Your task to perform on an android device: allow notifications from all sites in the chrome app Image 0: 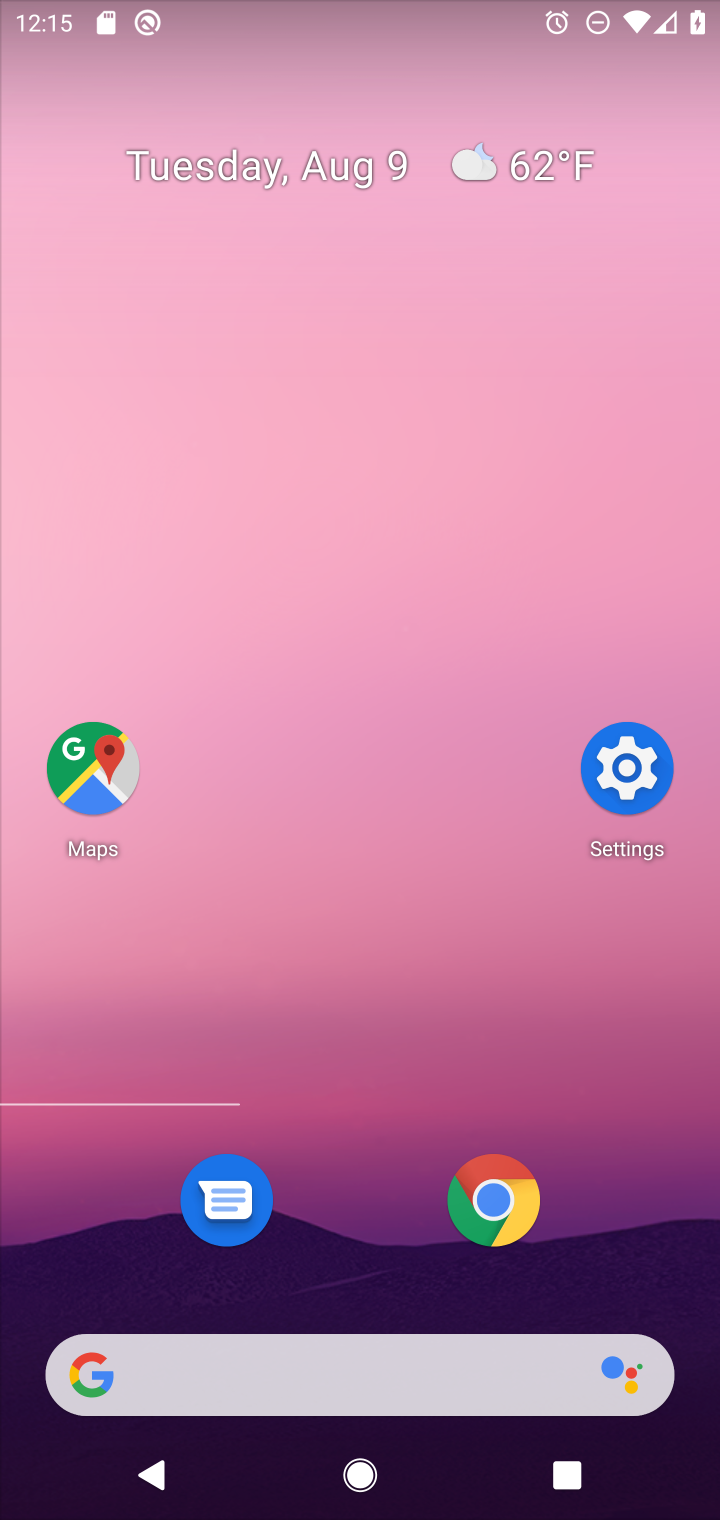
Step 0: click (478, 1204)
Your task to perform on an android device: allow notifications from all sites in the chrome app Image 1: 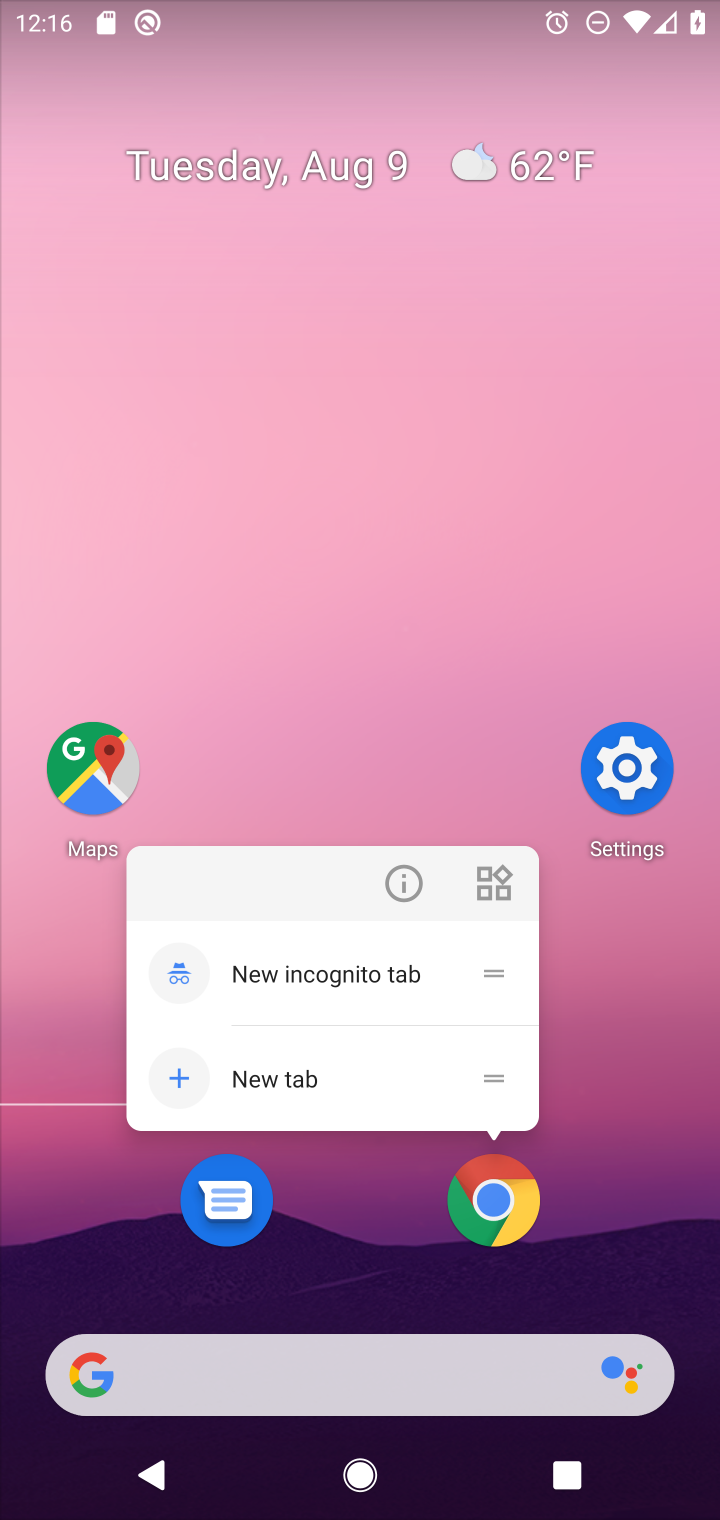
Step 1: click (485, 1202)
Your task to perform on an android device: allow notifications from all sites in the chrome app Image 2: 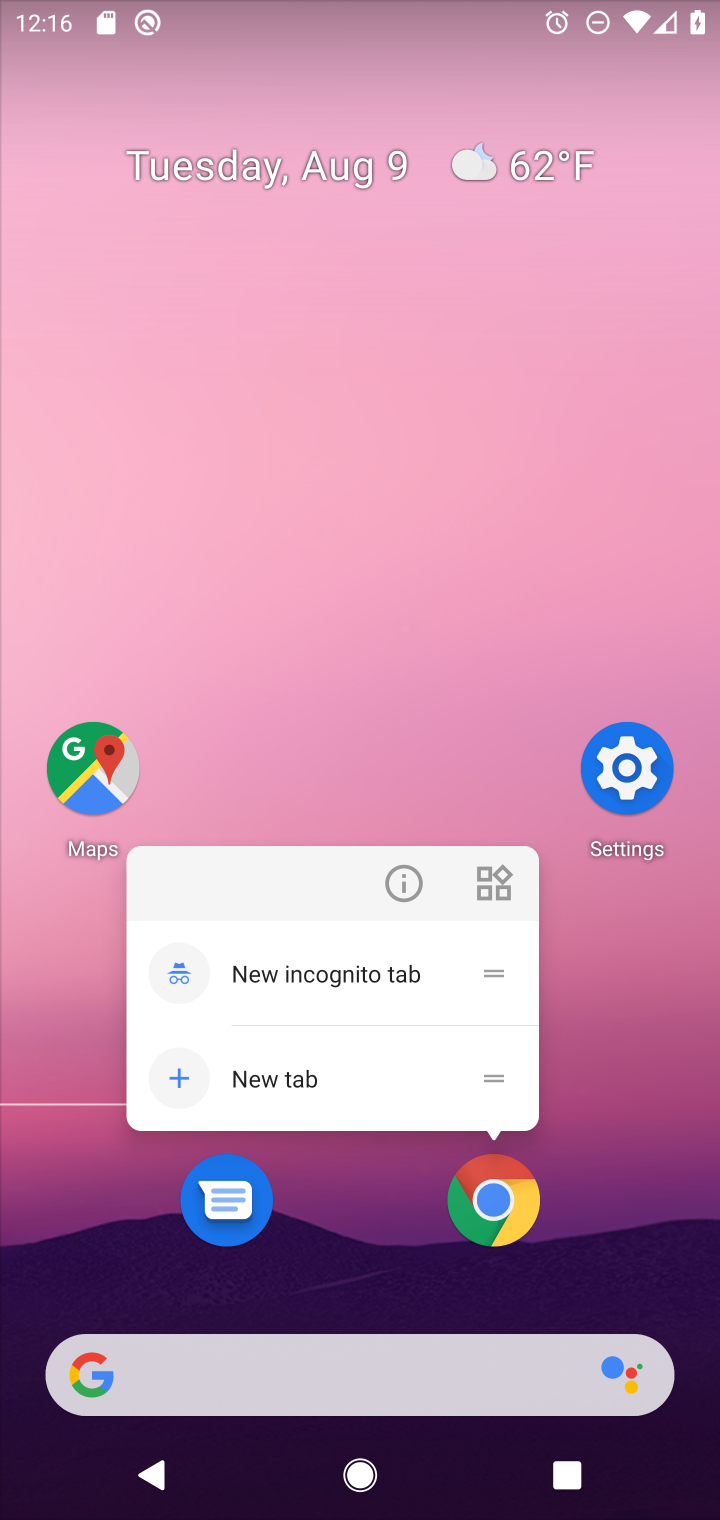
Step 2: click (501, 1195)
Your task to perform on an android device: allow notifications from all sites in the chrome app Image 3: 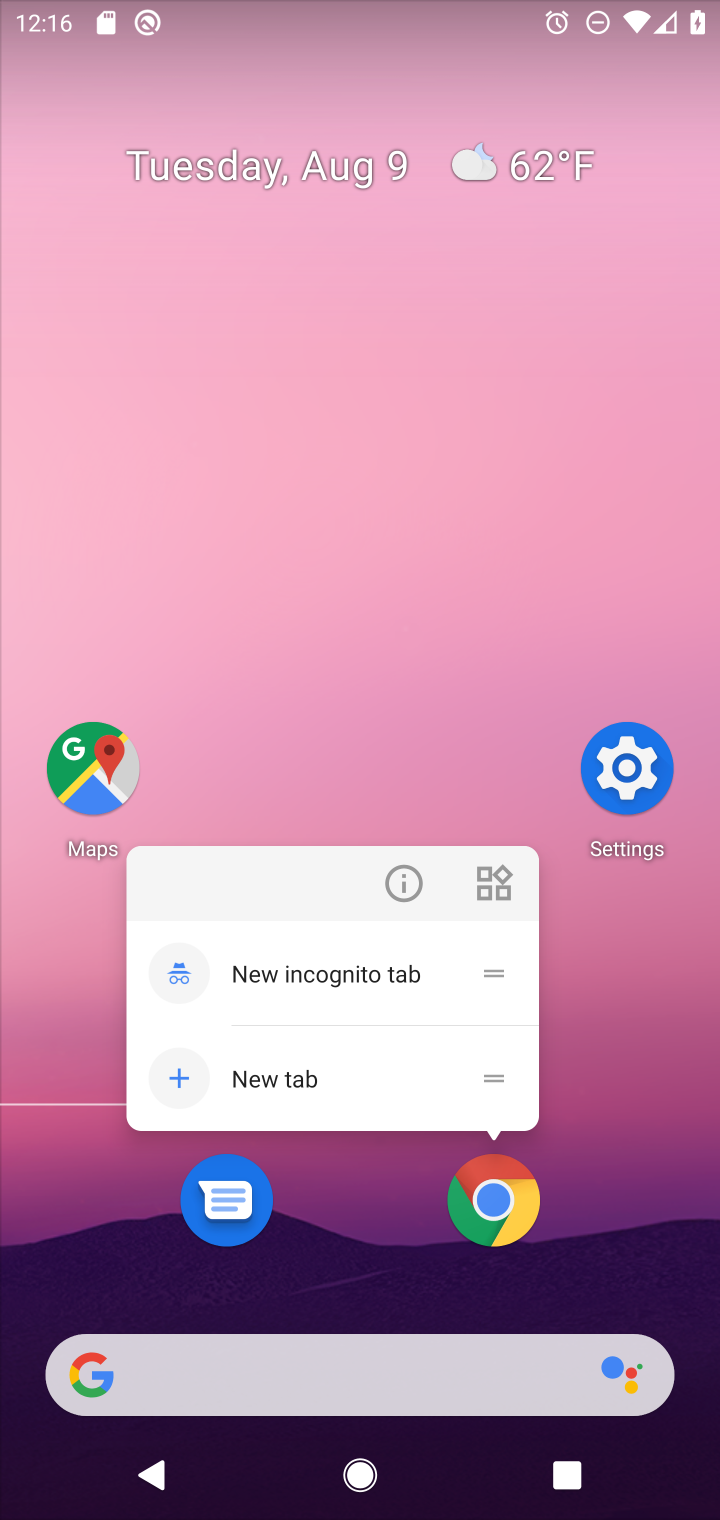
Step 3: click (501, 1205)
Your task to perform on an android device: allow notifications from all sites in the chrome app Image 4: 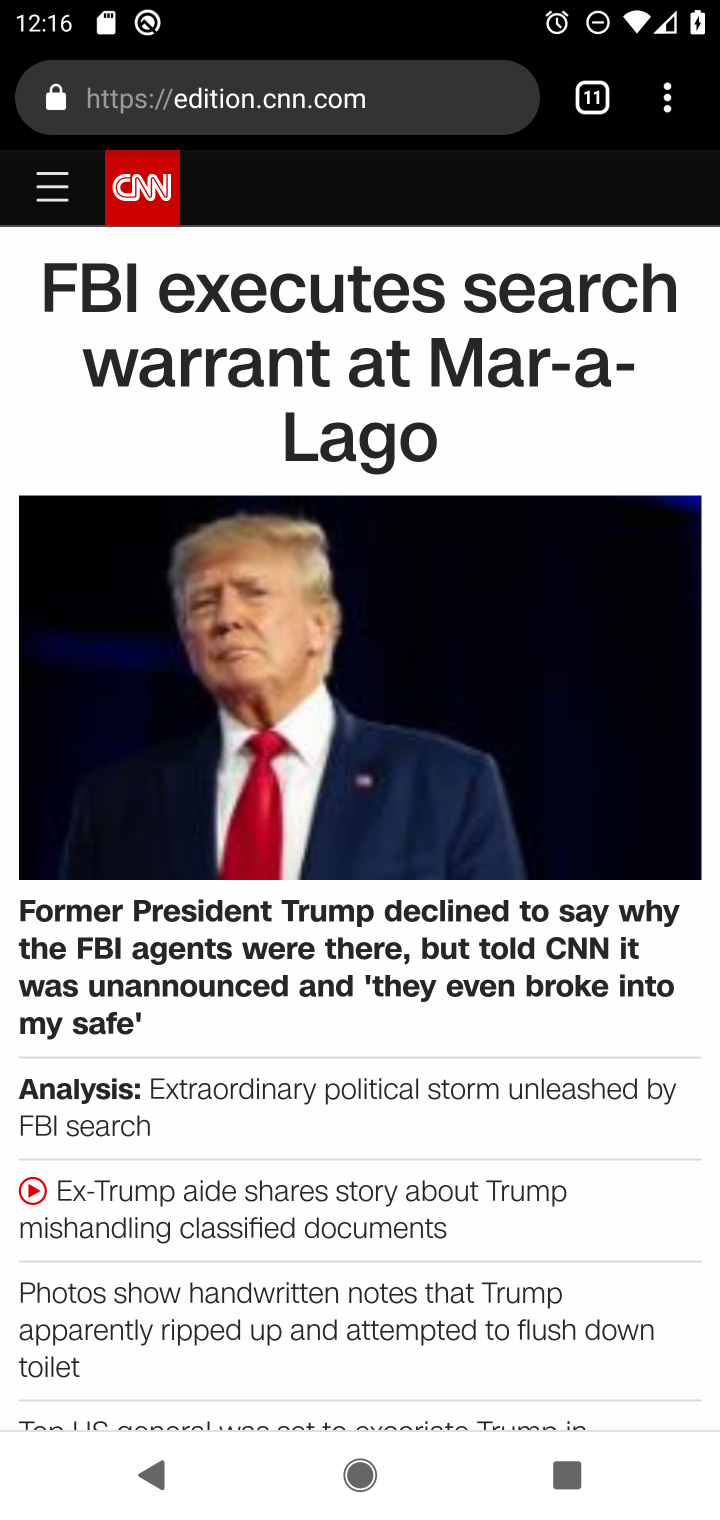
Step 4: drag from (668, 95) to (412, 1276)
Your task to perform on an android device: allow notifications from all sites in the chrome app Image 5: 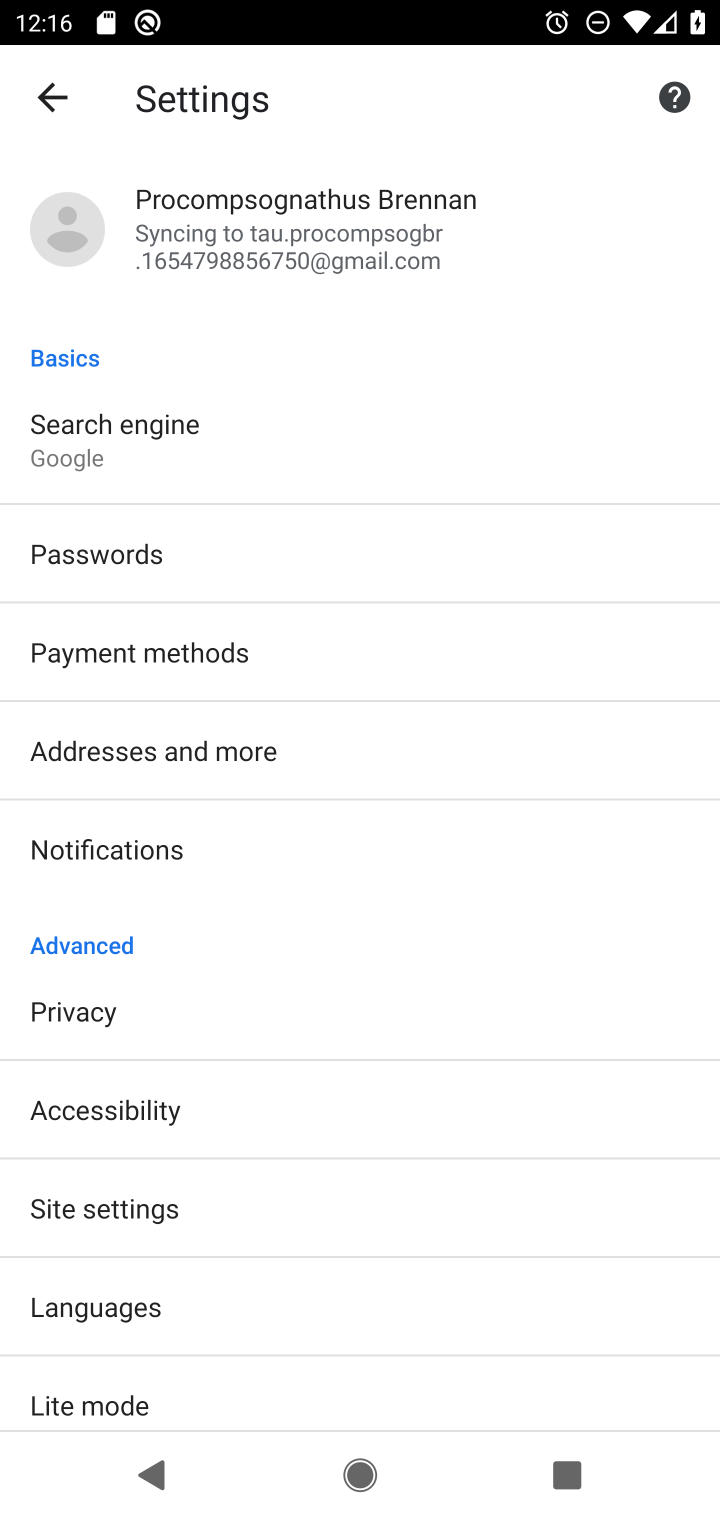
Step 5: drag from (354, 1170) to (508, 747)
Your task to perform on an android device: allow notifications from all sites in the chrome app Image 6: 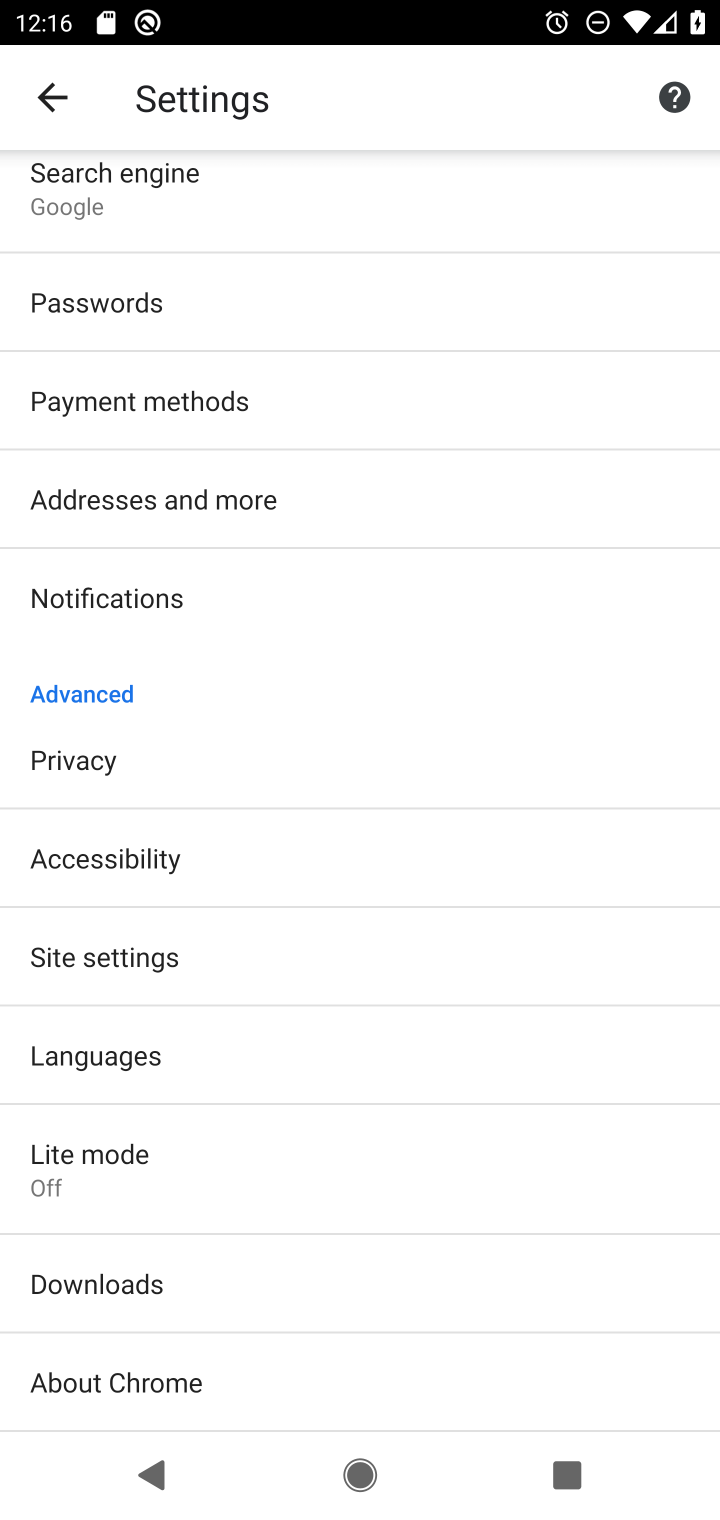
Step 6: click (122, 960)
Your task to perform on an android device: allow notifications from all sites in the chrome app Image 7: 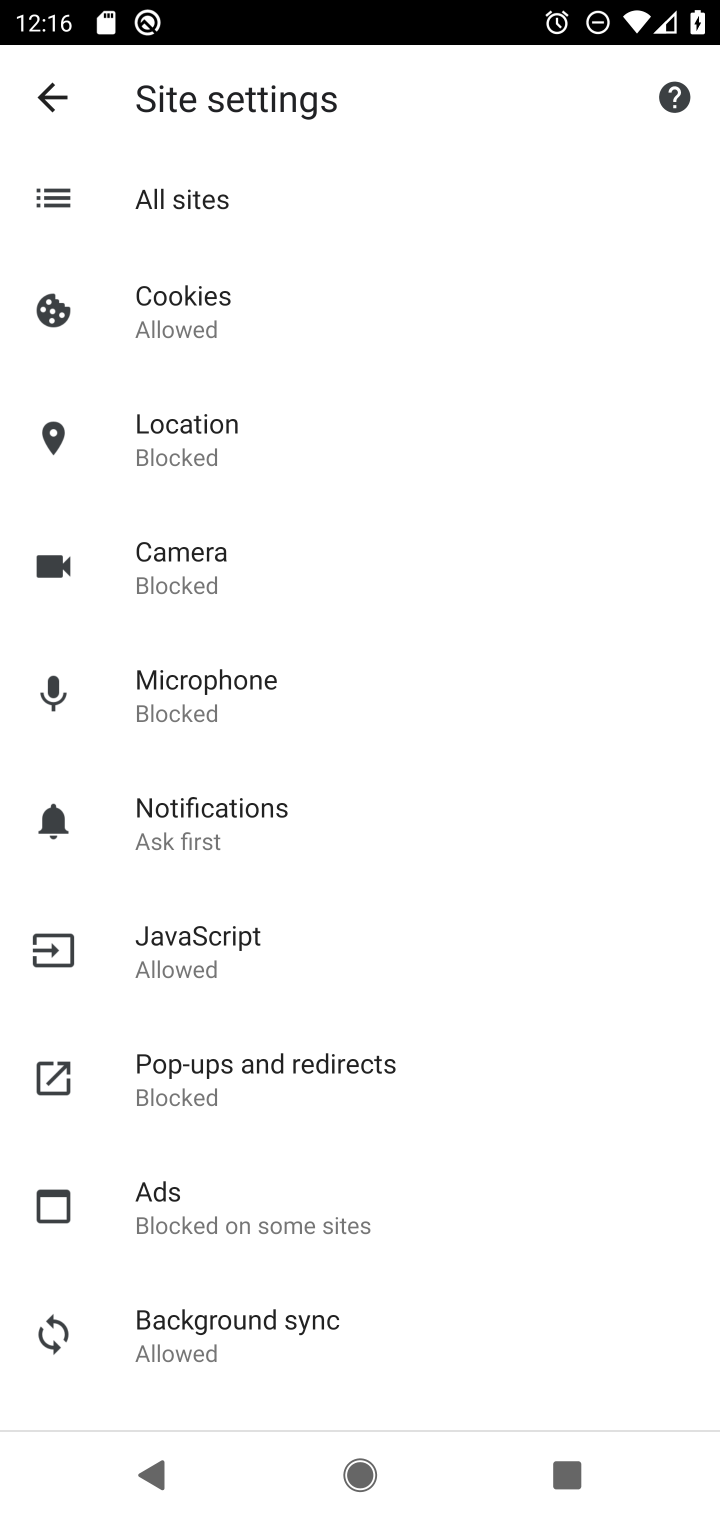
Step 7: click (213, 831)
Your task to perform on an android device: allow notifications from all sites in the chrome app Image 8: 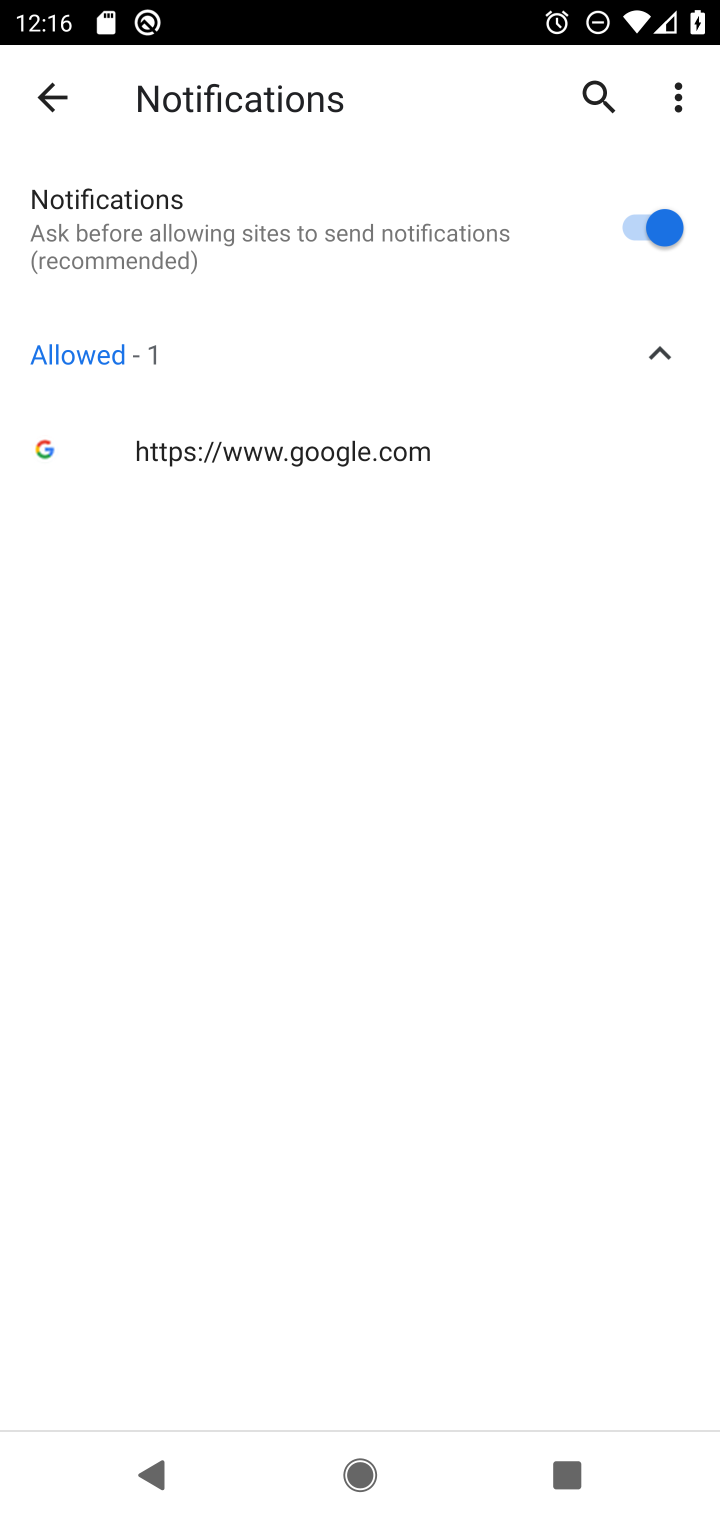
Step 8: task complete